Your task to perform on an android device: What's the weather? Image 0: 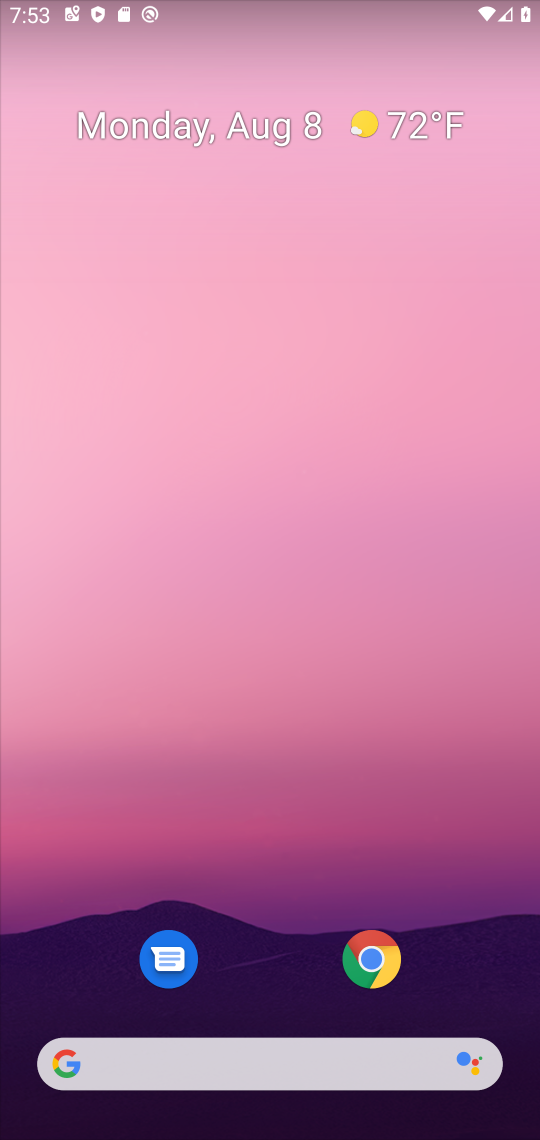
Step 0: drag from (495, 960) to (328, 69)
Your task to perform on an android device: What's the weather? Image 1: 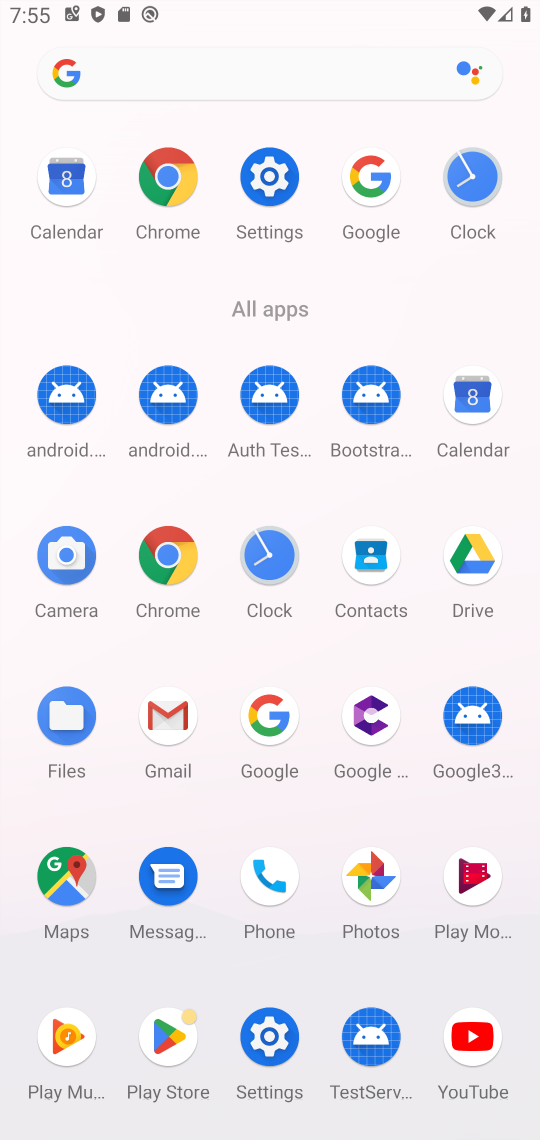
Step 1: click (274, 711)
Your task to perform on an android device: What's the weather? Image 2: 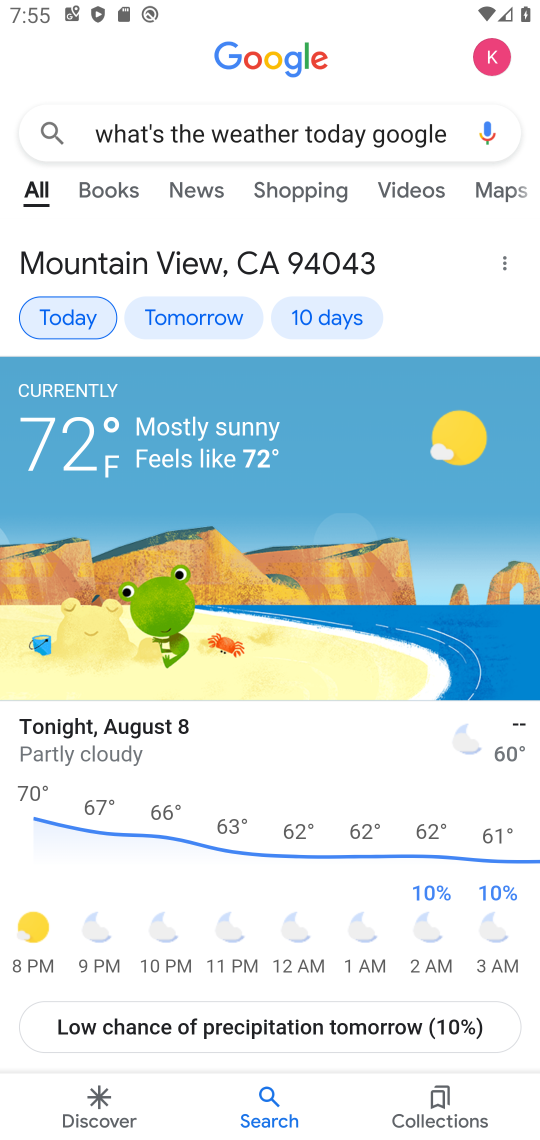
Step 2: press back button
Your task to perform on an android device: What's the weather? Image 3: 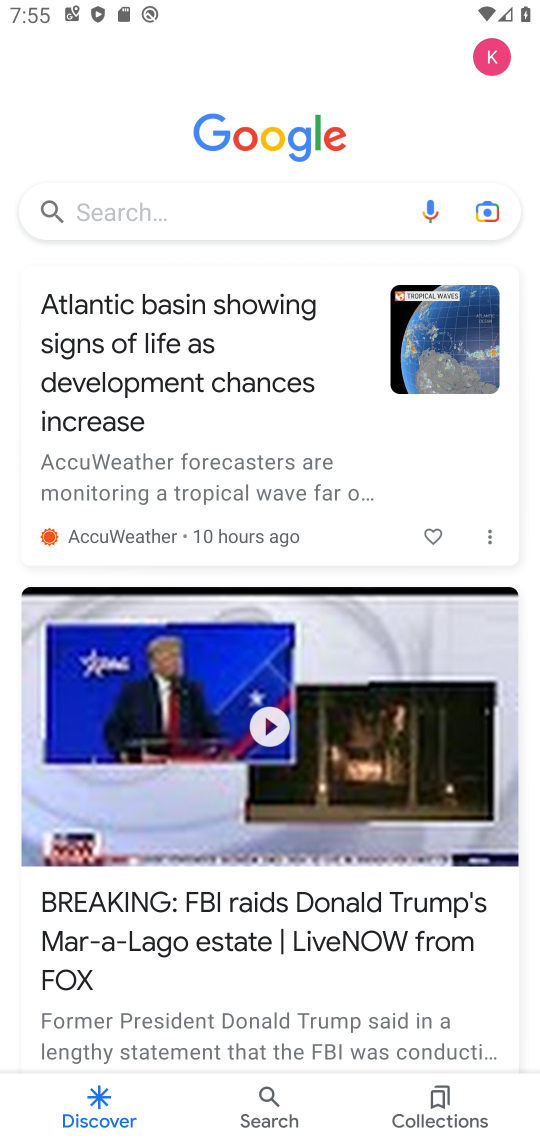
Step 3: click (158, 200)
Your task to perform on an android device: What's the weather? Image 4: 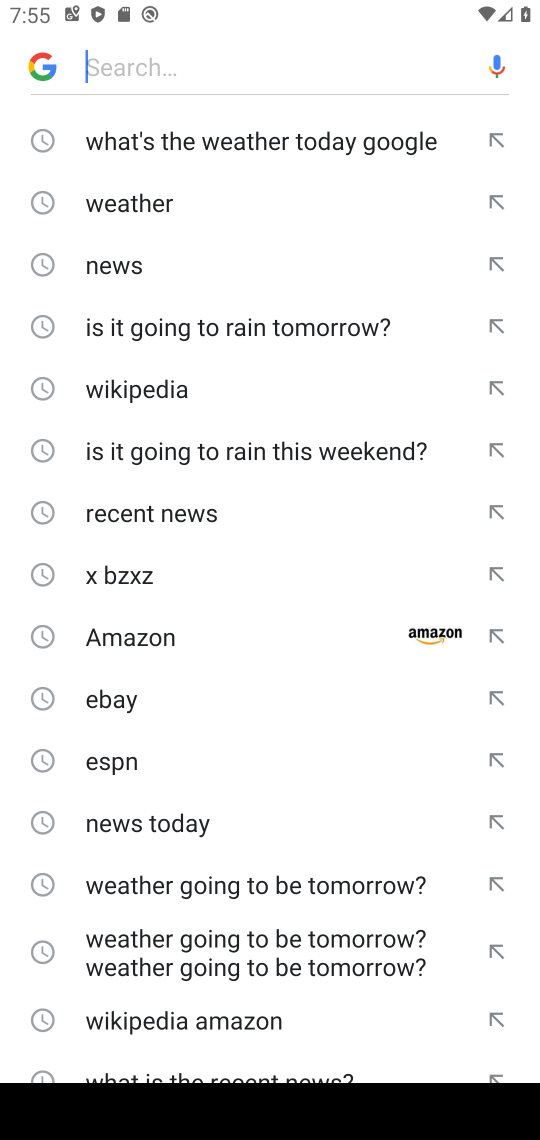
Step 4: type "What's the weather?"
Your task to perform on an android device: What's the weather? Image 5: 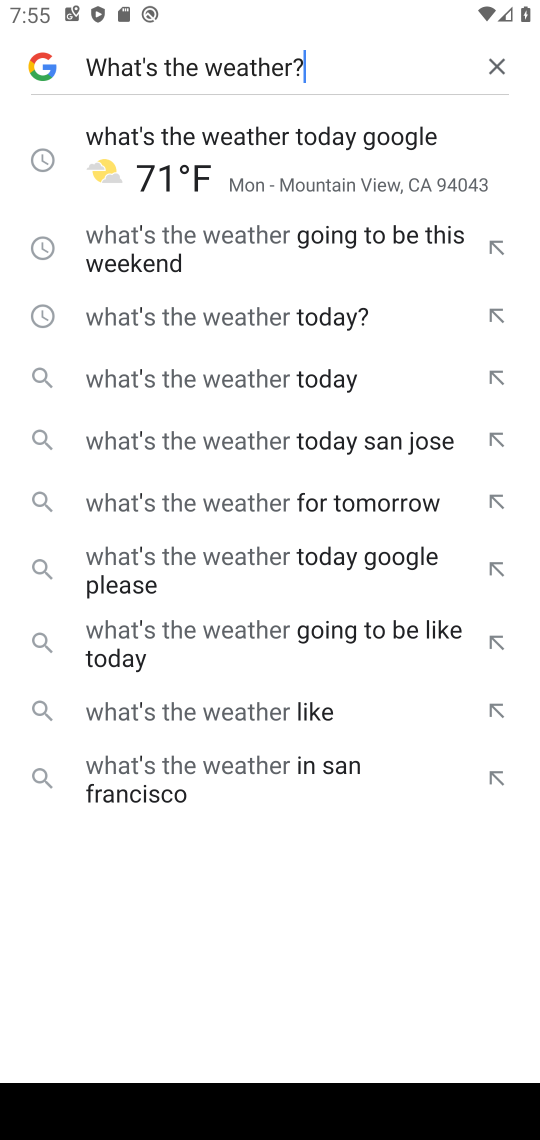
Step 5: click (252, 307)
Your task to perform on an android device: What's the weather? Image 6: 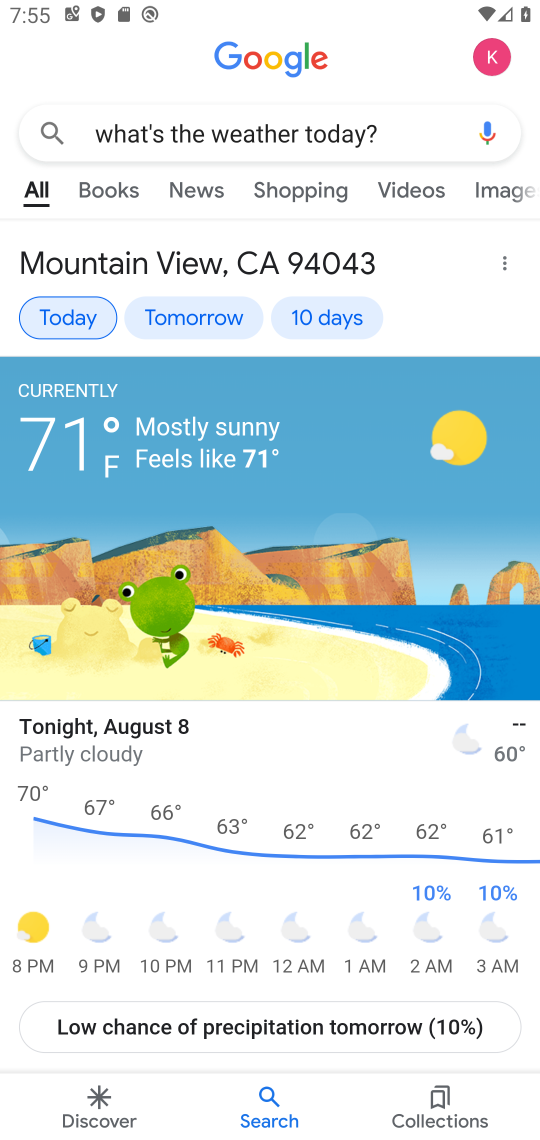
Step 6: task complete